Your task to perform on an android device: Open network settings Image 0: 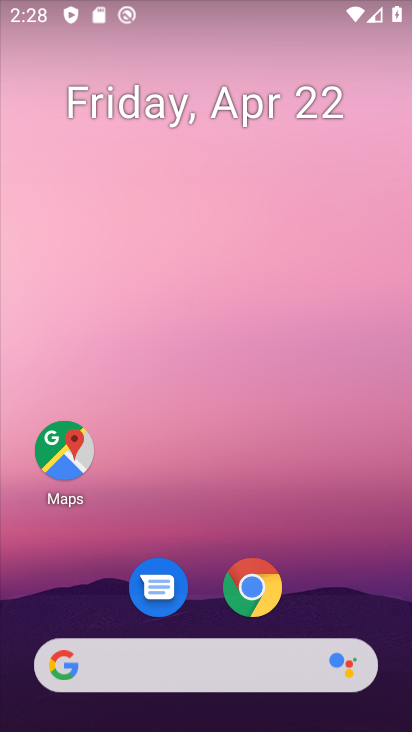
Step 0: drag from (313, 599) to (288, 149)
Your task to perform on an android device: Open network settings Image 1: 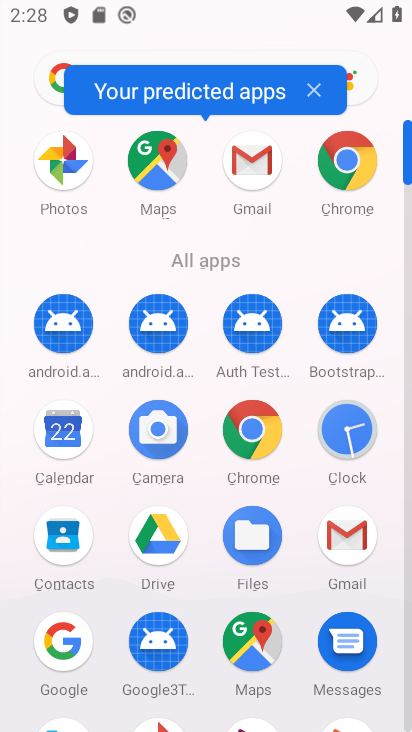
Step 1: drag from (210, 606) to (220, 235)
Your task to perform on an android device: Open network settings Image 2: 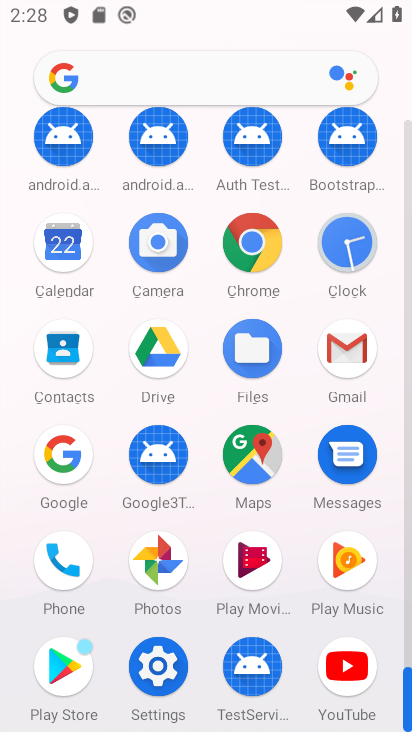
Step 2: click (165, 678)
Your task to perform on an android device: Open network settings Image 3: 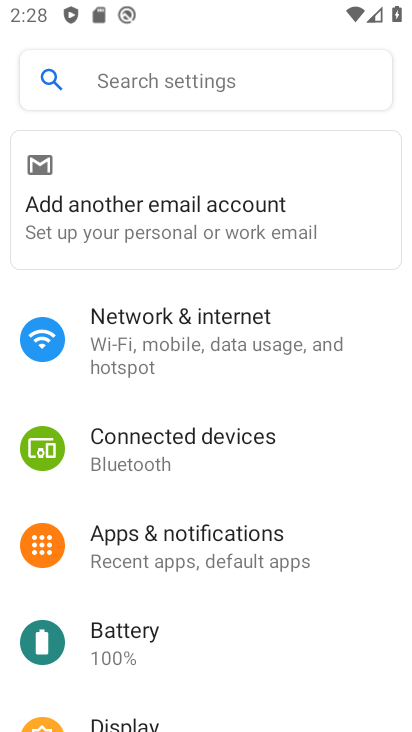
Step 3: click (247, 328)
Your task to perform on an android device: Open network settings Image 4: 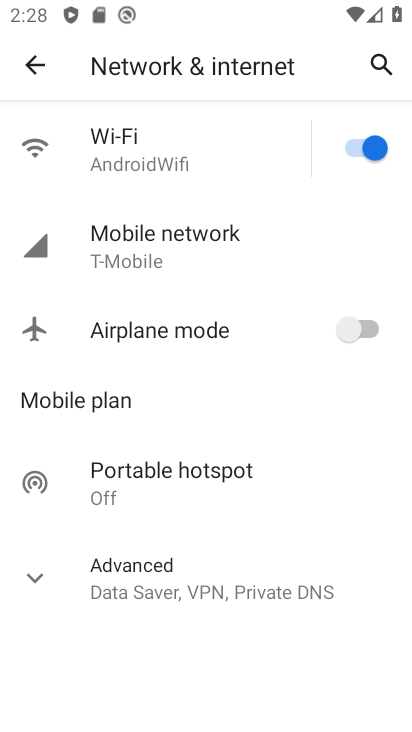
Step 4: task complete